Your task to perform on an android device: Add "logitech g pro" to the cart on amazon.com, then select checkout. Image 0: 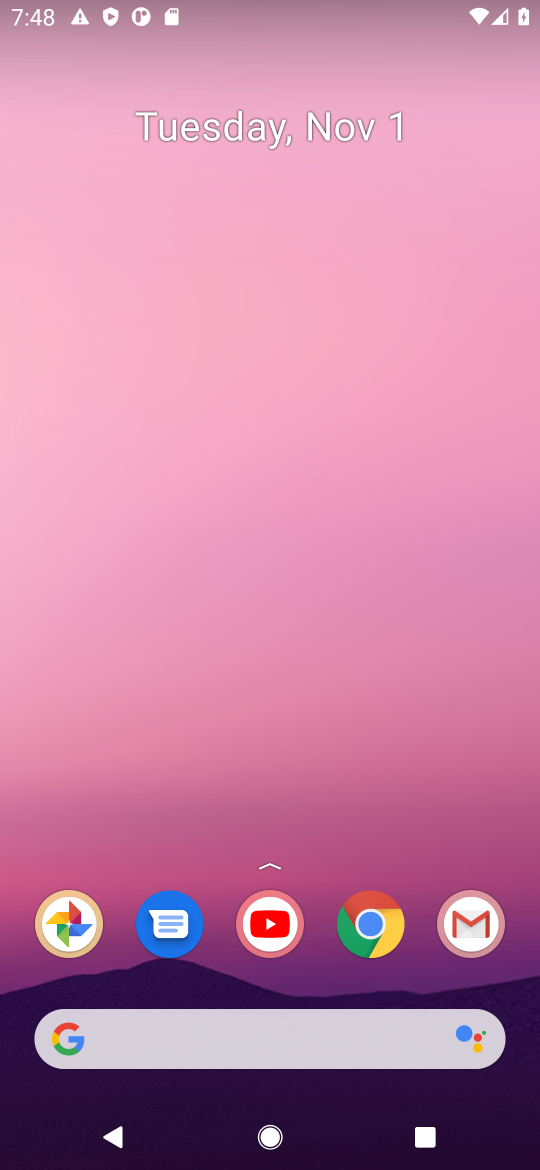
Step 0: press home button
Your task to perform on an android device: Add "logitech g pro" to the cart on amazon.com, then select checkout. Image 1: 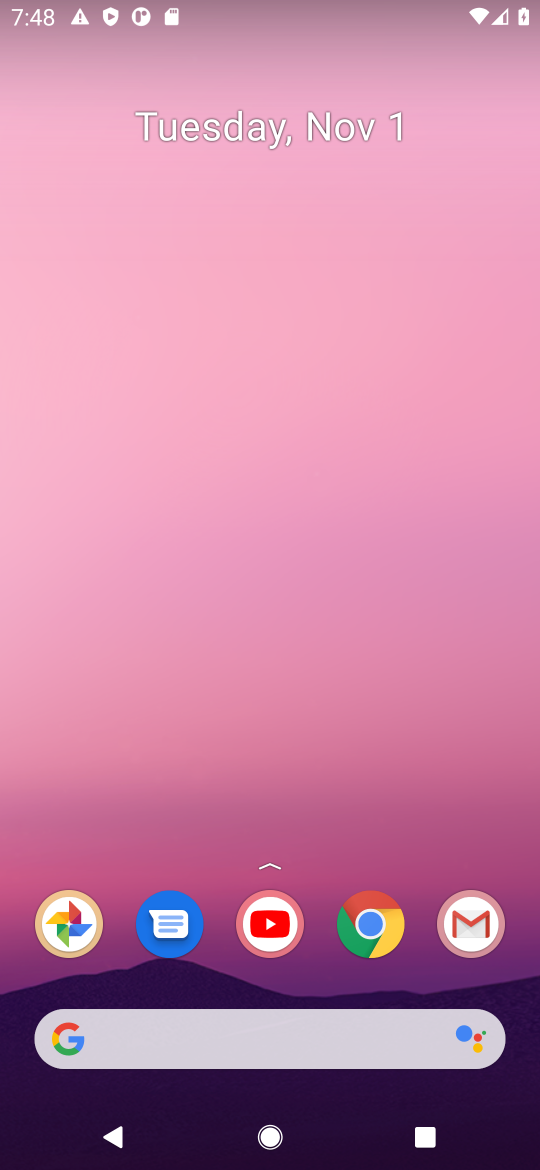
Step 1: click (105, 1029)
Your task to perform on an android device: Add "logitech g pro" to the cart on amazon.com, then select checkout. Image 2: 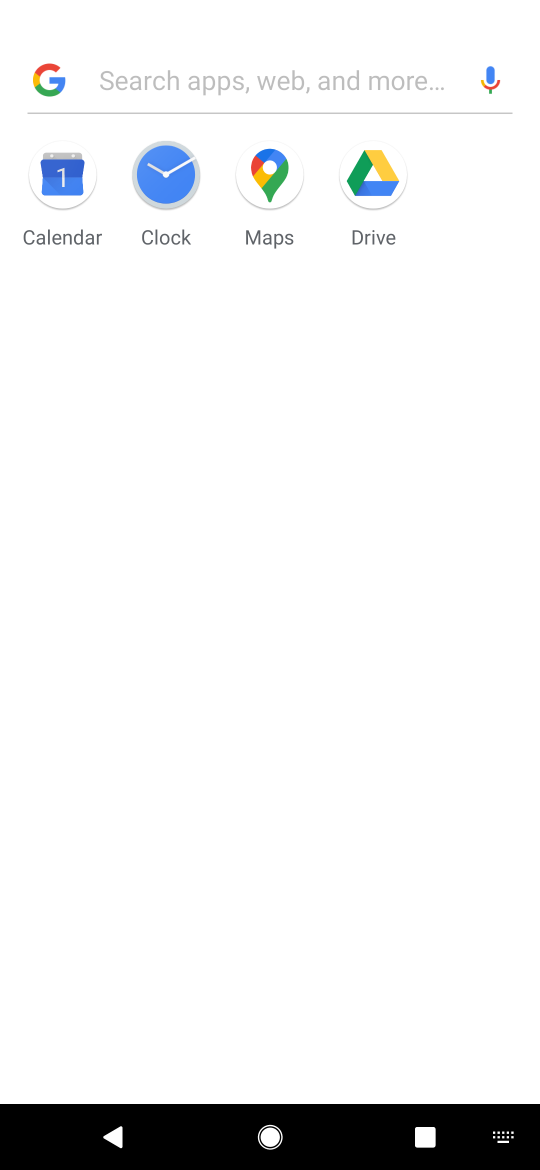
Step 2: press enter
Your task to perform on an android device: Add "logitech g pro" to the cart on amazon.com, then select checkout. Image 3: 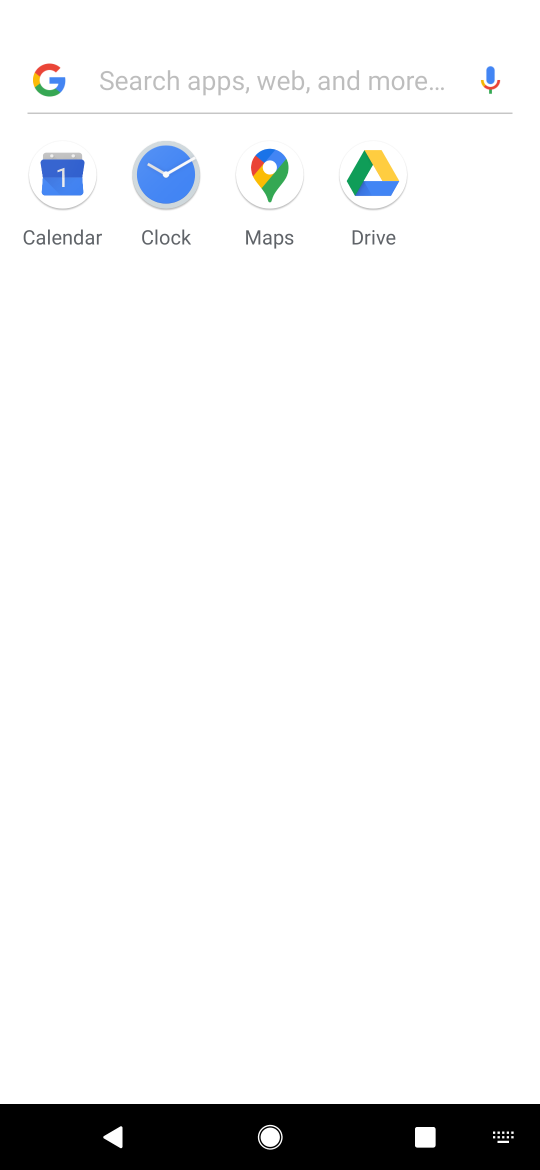
Step 3: type "amazon.com"
Your task to perform on an android device: Add "logitech g pro" to the cart on amazon.com, then select checkout. Image 4: 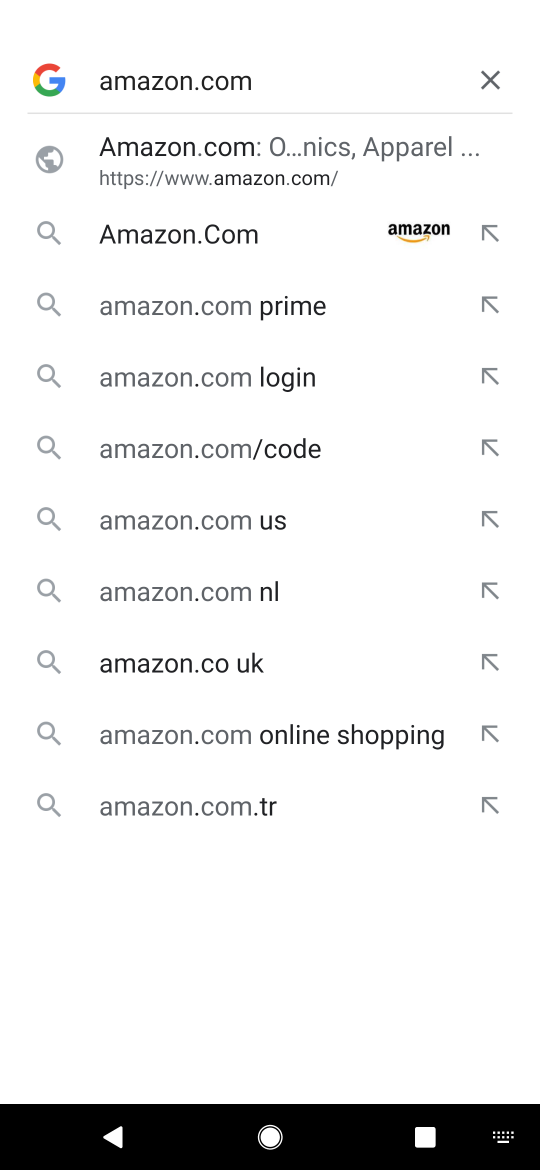
Step 4: press enter
Your task to perform on an android device: Add "logitech g pro" to the cart on amazon.com, then select checkout. Image 5: 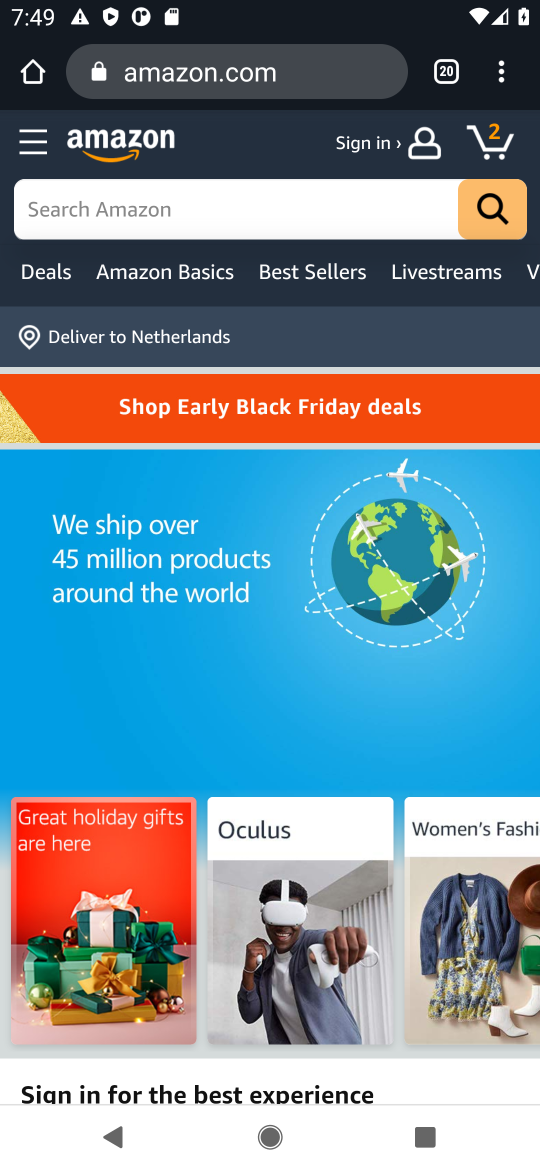
Step 5: click (68, 206)
Your task to perform on an android device: Add "logitech g pro" to the cart on amazon.com, then select checkout. Image 6: 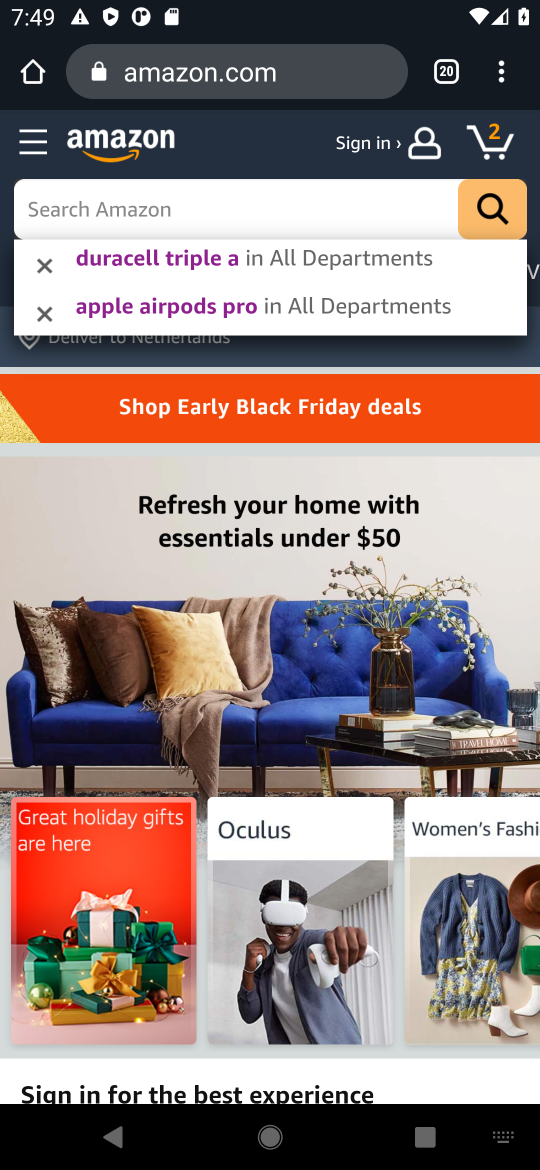
Step 6: type "logitech g pro"
Your task to perform on an android device: Add "logitech g pro" to the cart on amazon.com, then select checkout. Image 7: 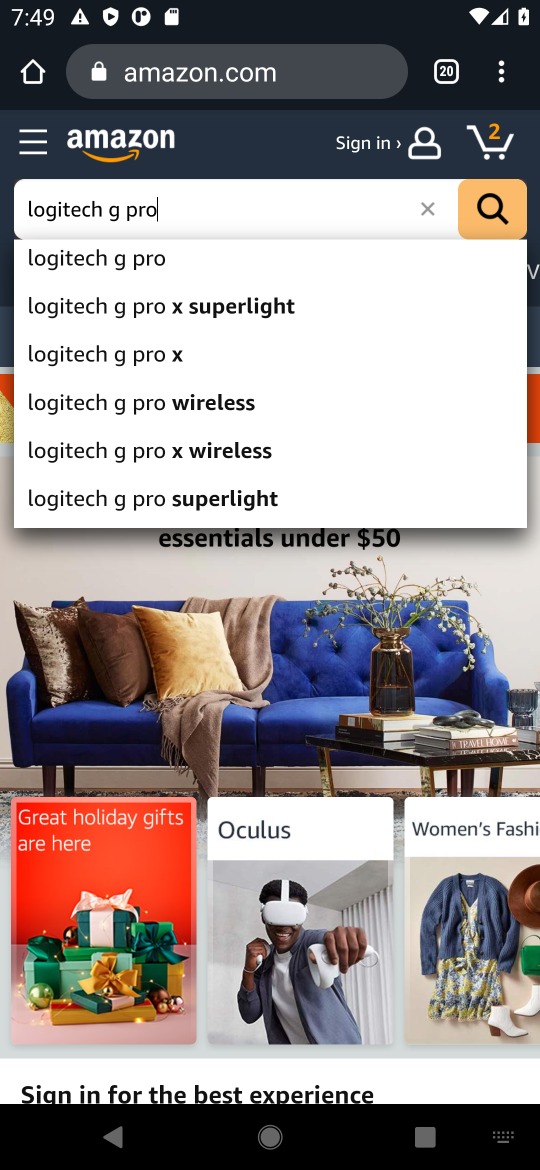
Step 7: click (496, 209)
Your task to perform on an android device: Add "logitech g pro" to the cart on amazon.com, then select checkout. Image 8: 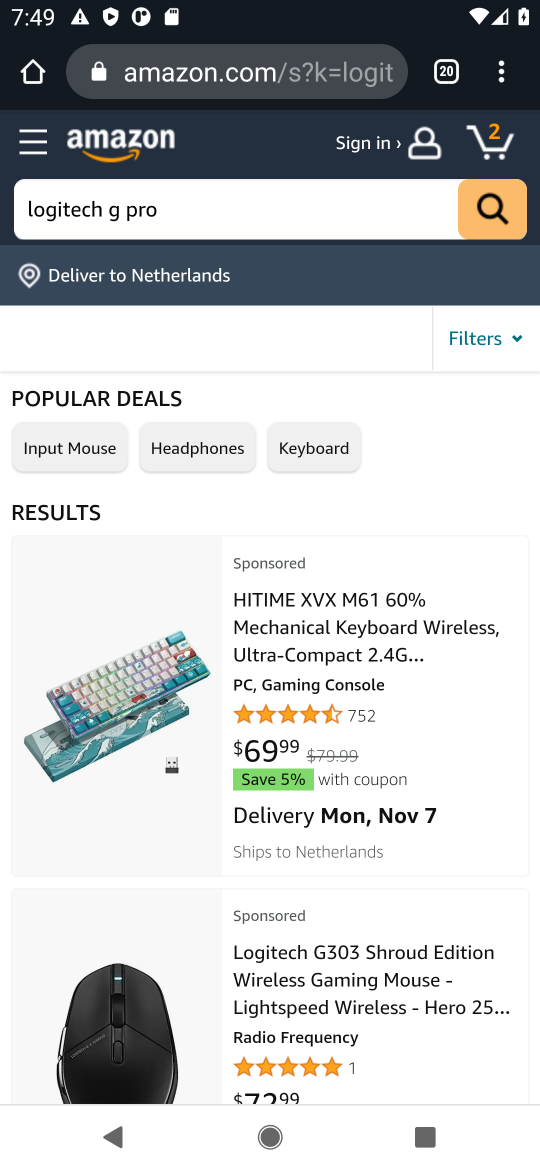
Step 8: drag from (420, 1026) to (401, 648)
Your task to perform on an android device: Add "logitech g pro" to the cart on amazon.com, then select checkout. Image 9: 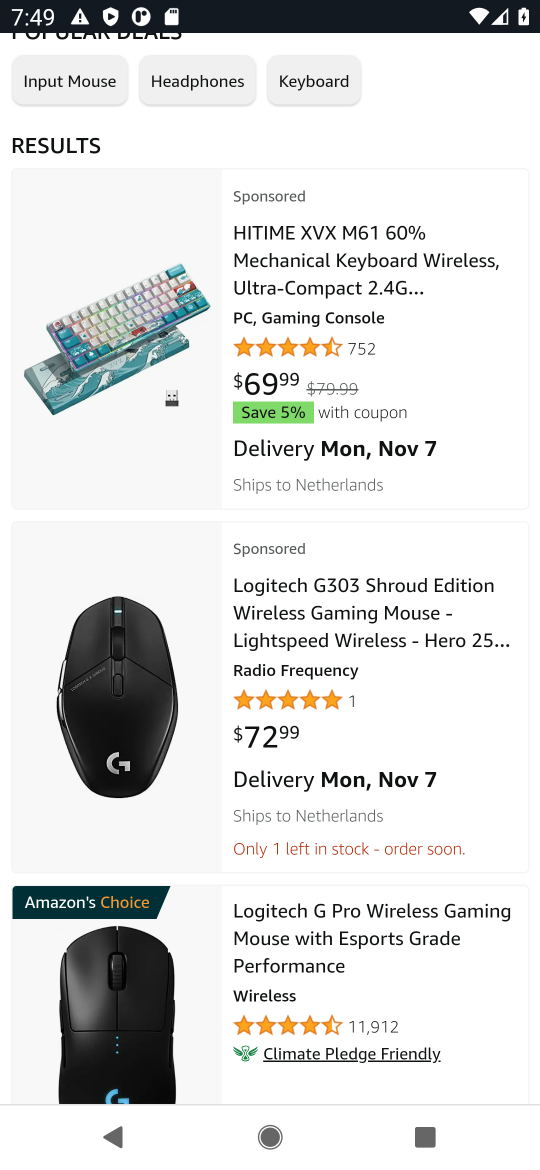
Step 9: drag from (344, 939) to (360, 597)
Your task to perform on an android device: Add "logitech g pro" to the cart on amazon.com, then select checkout. Image 10: 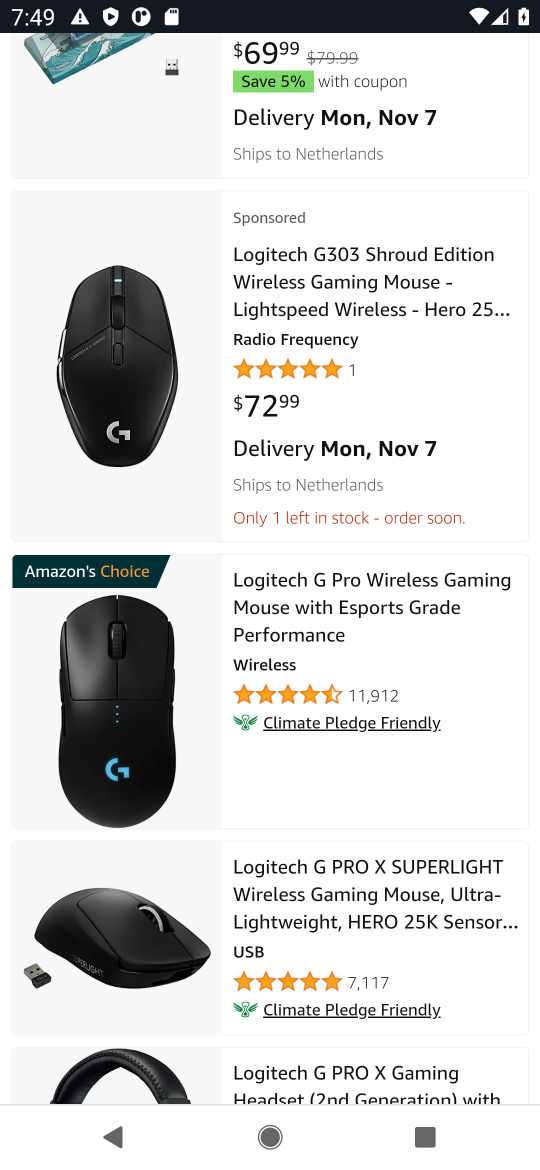
Step 10: click (342, 608)
Your task to perform on an android device: Add "logitech g pro" to the cart on amazon.com, then select checkout. Image 11: 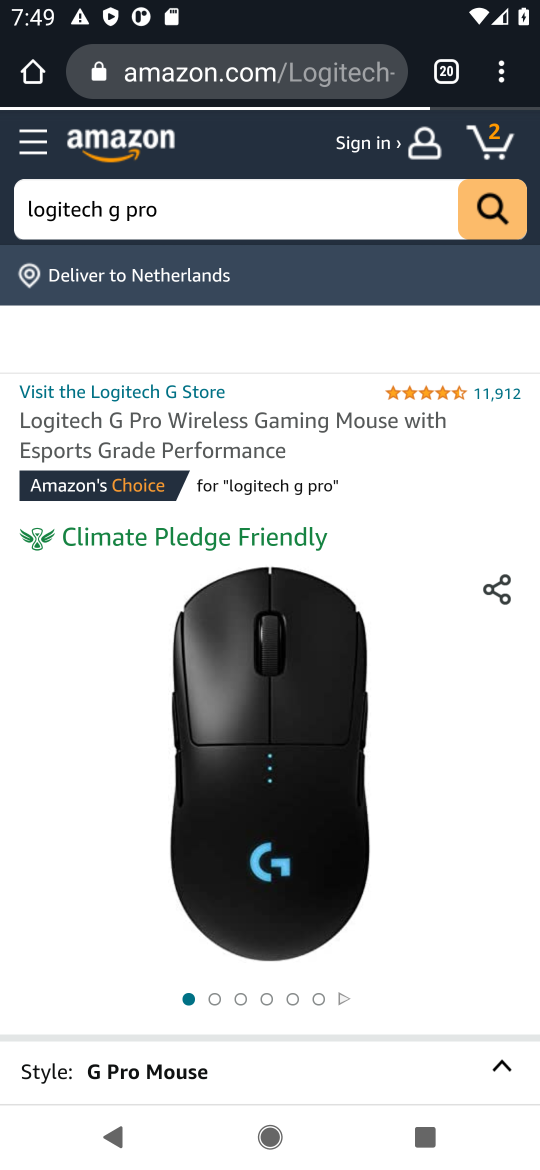
Step 11: drag from (318, 880) to (341, 503)
Your task to perform on an android device: Add "logitech g pro" to the cart on amazon.com, then select checkout. Image 12: 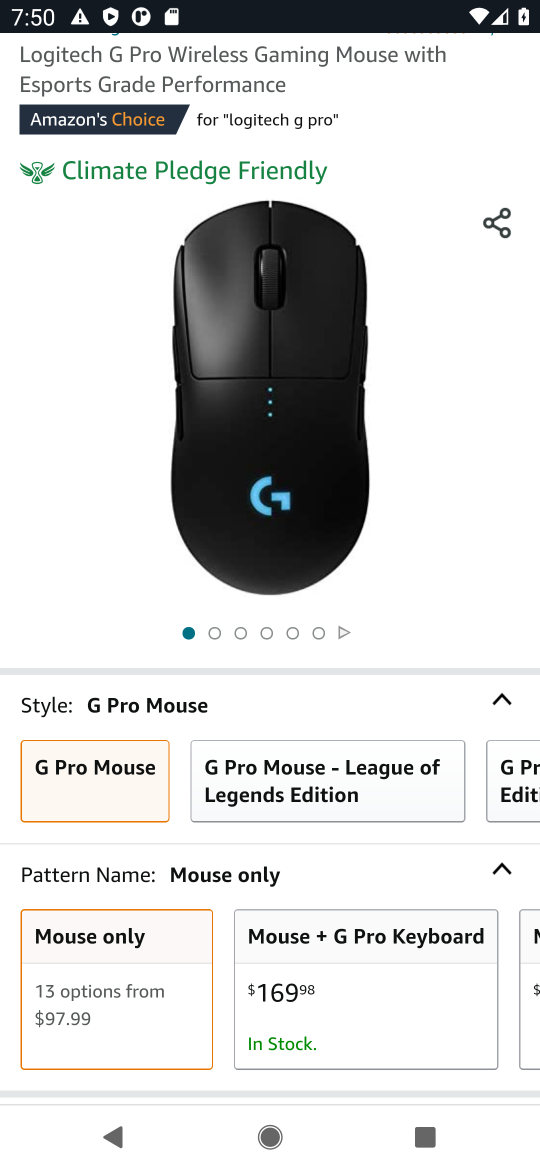
Step 12: drag from (342, 845) to (382, 521)
Your task to perform on an android device: Add "logitech g pro" to the cart on amazon.com, then select checkout. Image 13: 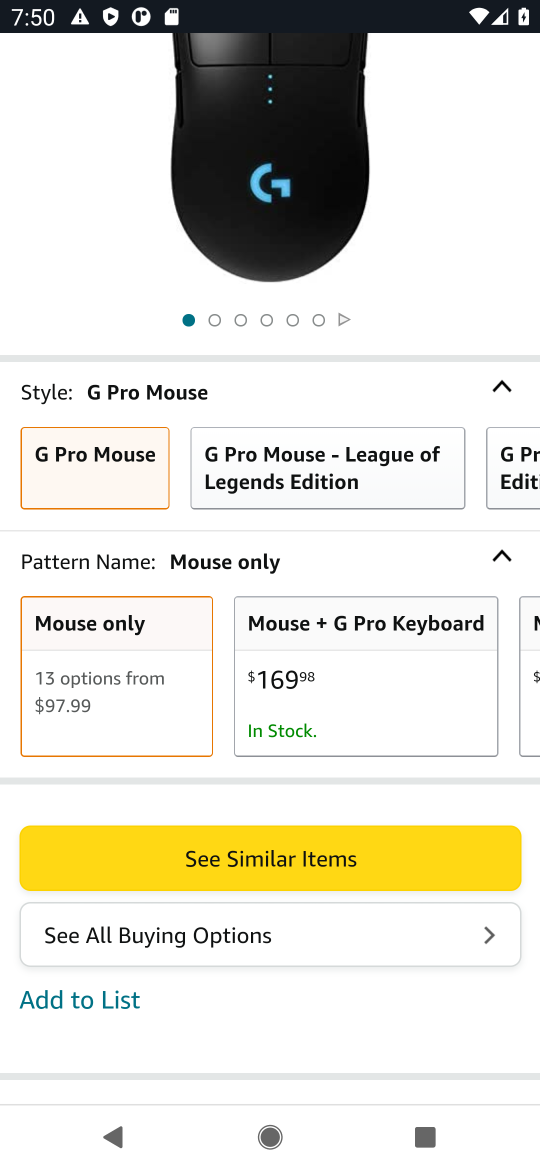
Step 13: drag from (308, 940) to (394, 461)
Your task to perform on an android device: Add "logitech g pro" to the cart on amazon.com, then select checkout. Image 14: 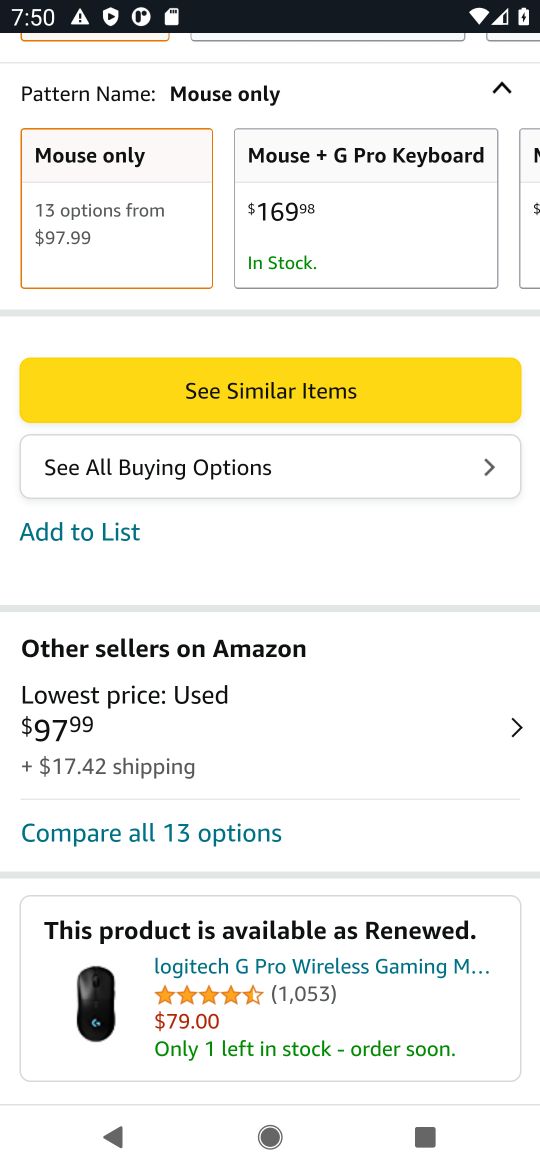
Step 14: click (82, 531)
Your task to perform on an android device: Add "logitech g pro" to the cart on amazon.com, then select checkout. Image 15: 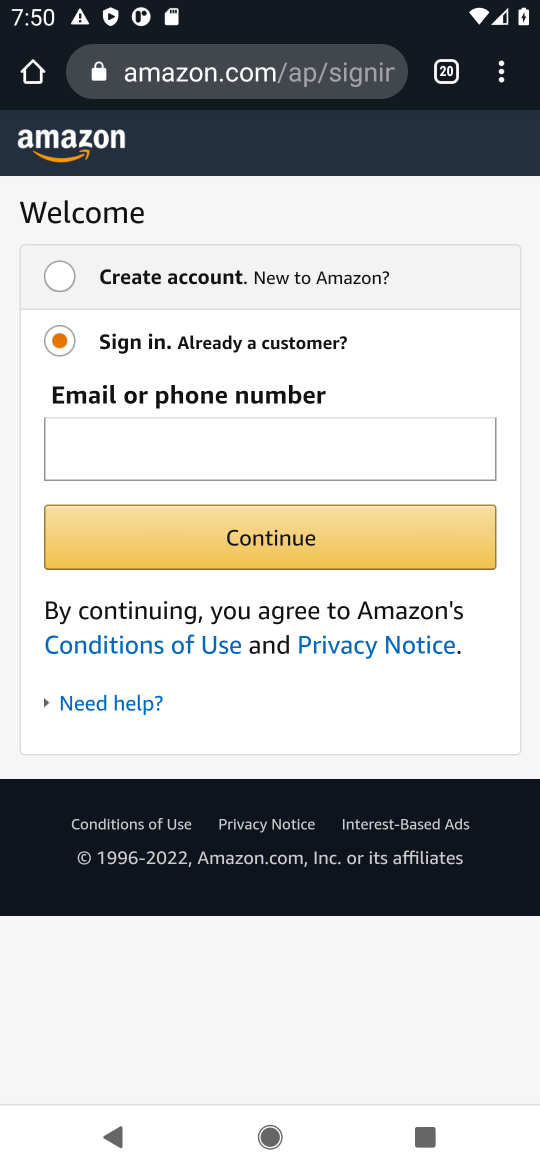
Step 15: task complete